Your task to perform on an android device: turn smart compose on in the gmail app Image 0: 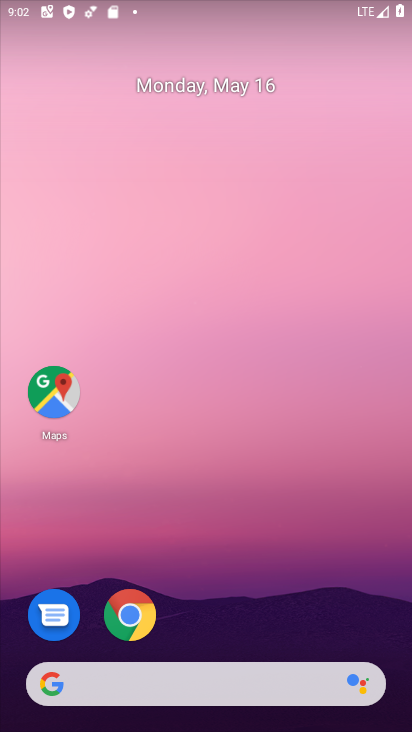
Step 0: drag from (174, 534) to (141, 37)
Your task to perform on an android device: turn smart compose on in the gmail app Image 1: 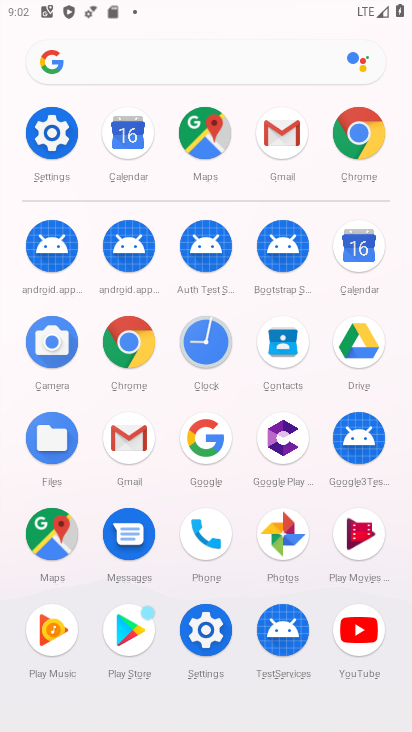
Step 1: click (138, 458)
Your task to perform on an android device: turn smart compose on in the gmail app Image 2: 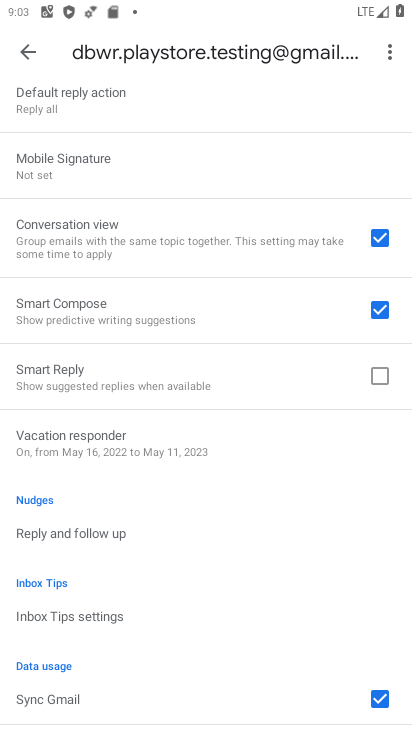
Step 2: task complete